Your task to perform on an android device: install app "Google Docs" Image 0: 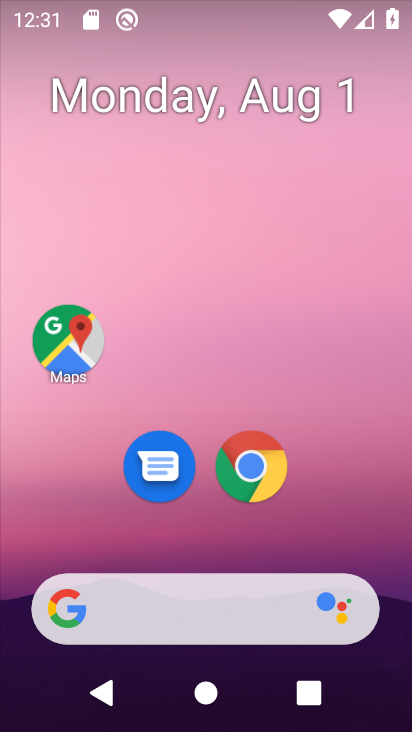
Step 0: drag from (207, 552) to (157, 1)
Your task to perform on an android device: install app "Google Docs" Image 1: 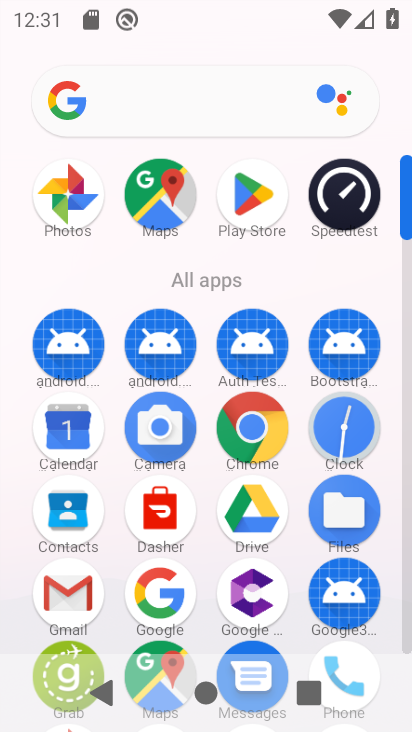
Step 1: click (244, 194)
Your task to perform on an android device: install app "Google Docs" Image 2: 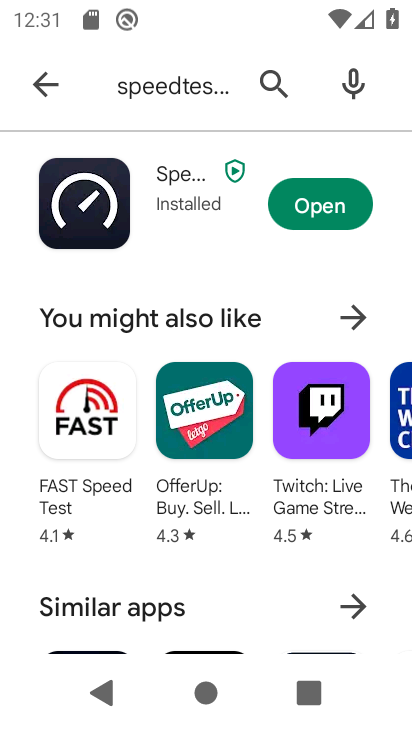
Step 2: click (189, 98)
Your task to perform on an android device: install app "Google Docs" Image 3: 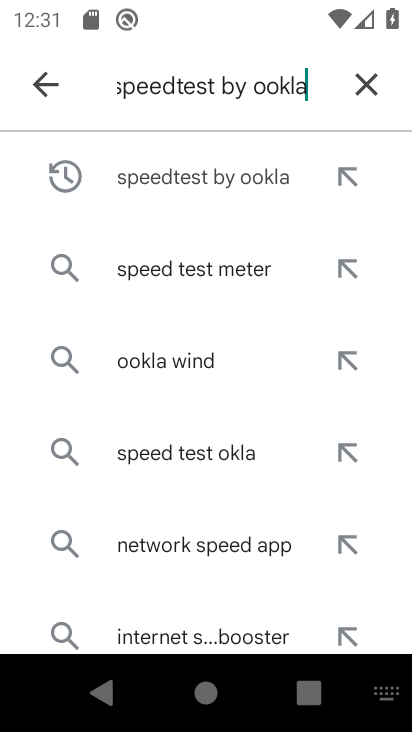
Step 3: click (362, 82)
Your task to perform on an android device: install app "Google Docs" Image 4: 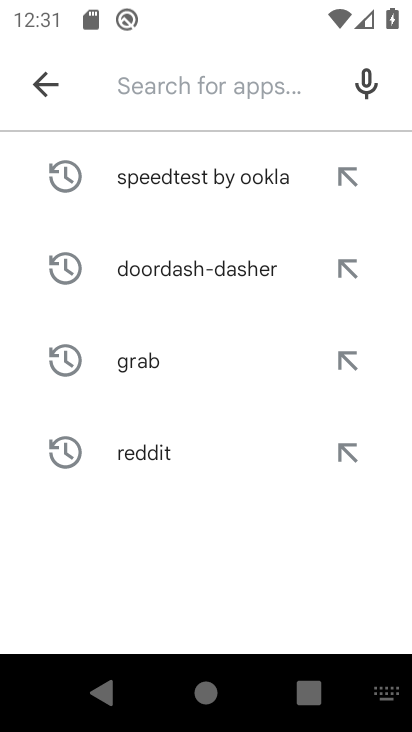
Step 4: type "google docs"
Your task to perform on an android device: install app "Google Docs" Image 5: 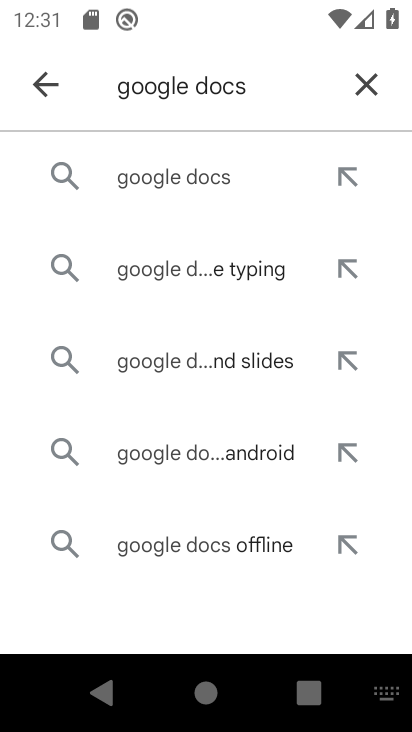
Step 5: click (198, 176)
Your task to perform on an android device: install app "Google Docs" Image 6: 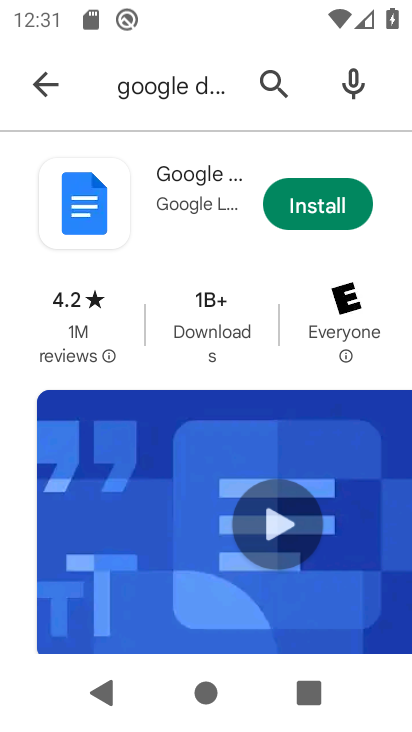
Step 6: click (316, 204)
Your task to perform on an android device: install app "Google Docs" Image 7: 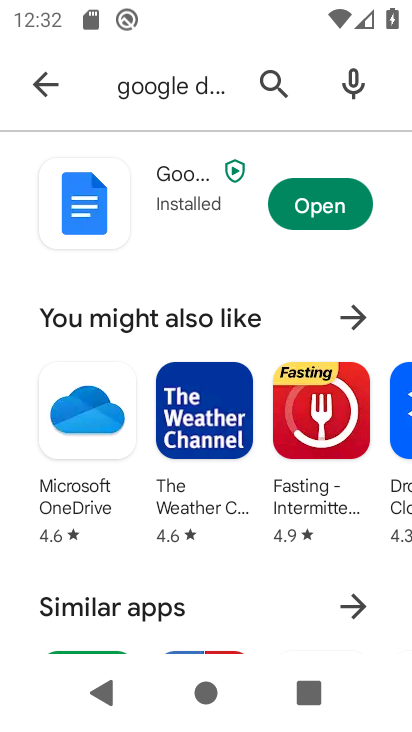
Step 7: task complete